Your task to perform on an android device: Install the Instagram app Image 0: 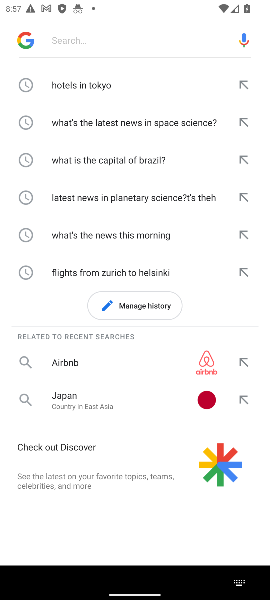
Step 0: press home button
Your task to perform on an android device: Install the Instagram app Image 1: 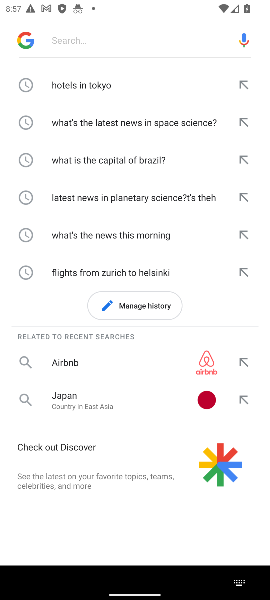
Step 1: press home button
Your task to perform on an android device: Install the Instagram app Image 2: 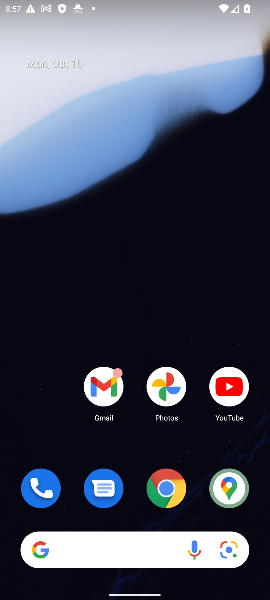
Step 2: drag from (194, 452) to (93, 58)
Your task to perform on an android device: Install the Instagram app Image 3: 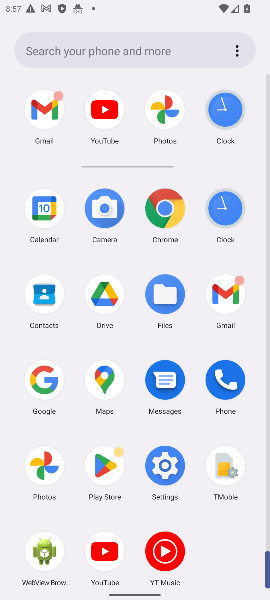
Step 3: click (105, 468)
Your task to perform on an android device: Install the Instagram app Image 4: 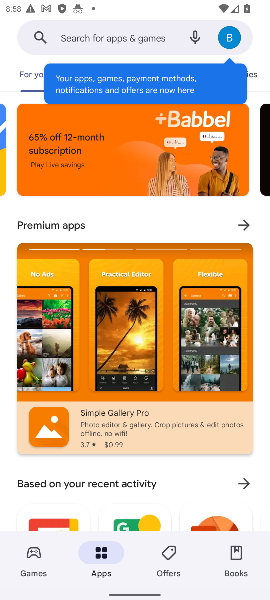
Step 4: click (147, 45)
Your task to perform on an android device: Install the Instagram app Image 5: 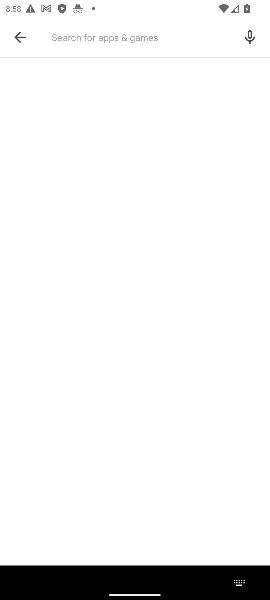
Step 5: type "Instagram app"
Your task to perform on an android device: Install the Instagram app Image 6: 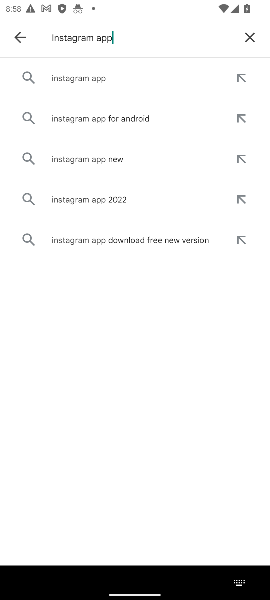
Step 6: press enter
Your task to perform on an android device: Install the Instagram app Image 7: 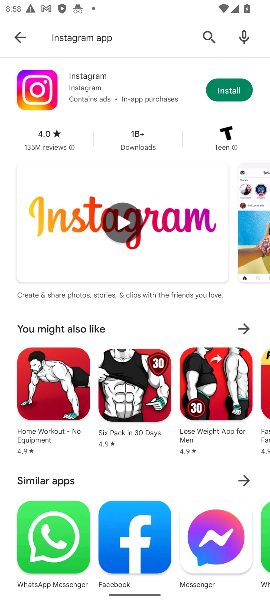
Step 7: click (236, 81)
Your task to perform on an android device: Install the Instagram app Image 8: 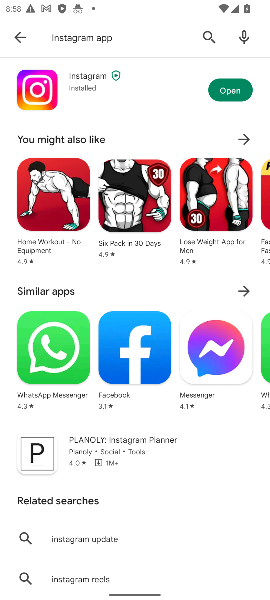
Step 8: task complete